Your task to perform on an android device: change alarm snooze length Image 0: 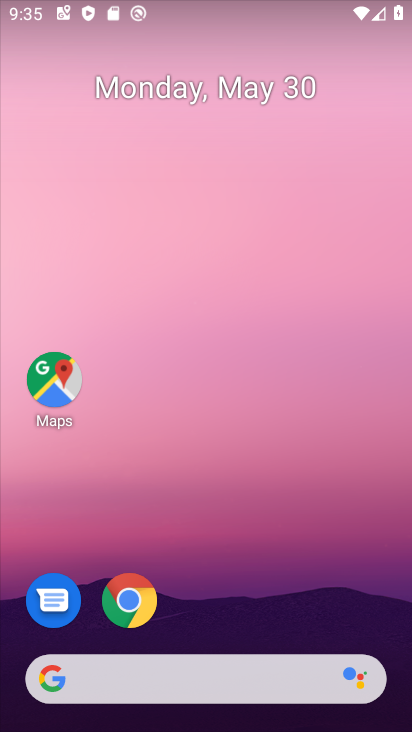
Step 0: press home button
Your task to perform on an android device: change alarm snooze length Image 1: 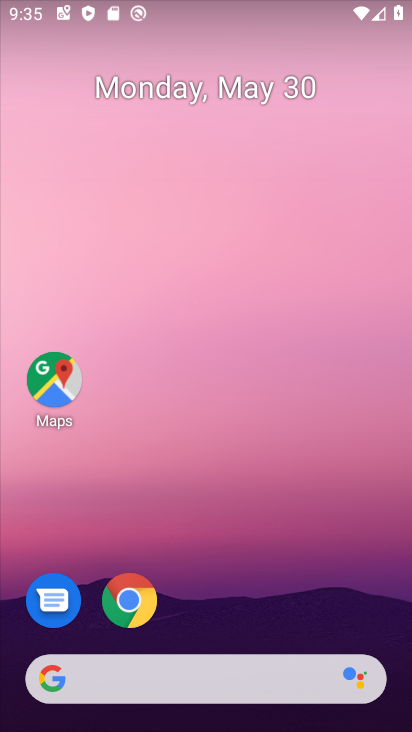
Step 1: drag from (280, 626) to (268, 81)
Your task to perform on an android device: change alarm snooze length Image 2: 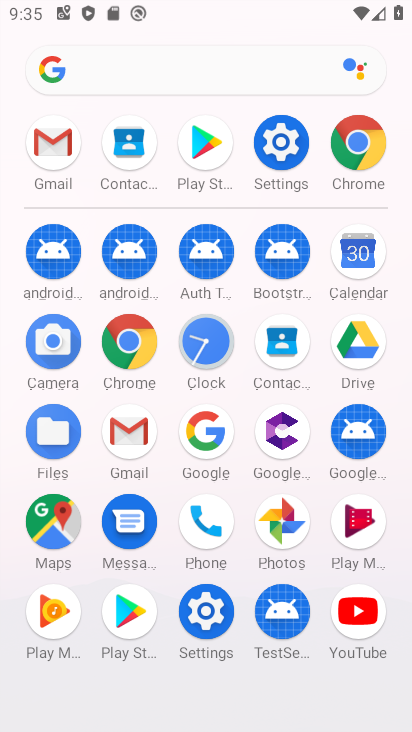
Step 2: click (198, 340)
Your task to perform on an android device: change alarm snooze length Image 3: 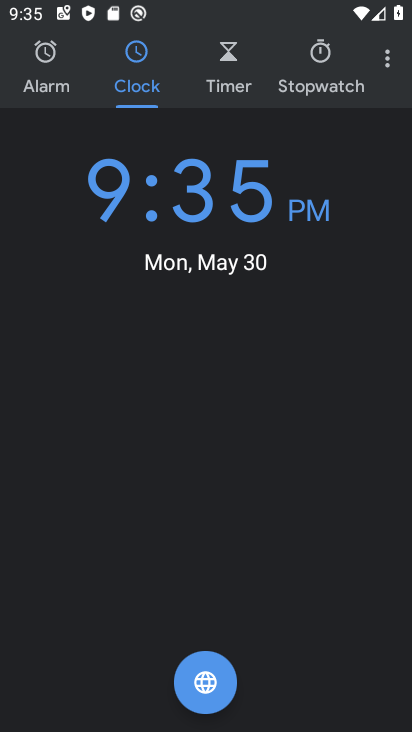
Step 3: click (375, 58)
Your task to perform on an android device: change alarm snooze length Image 4: 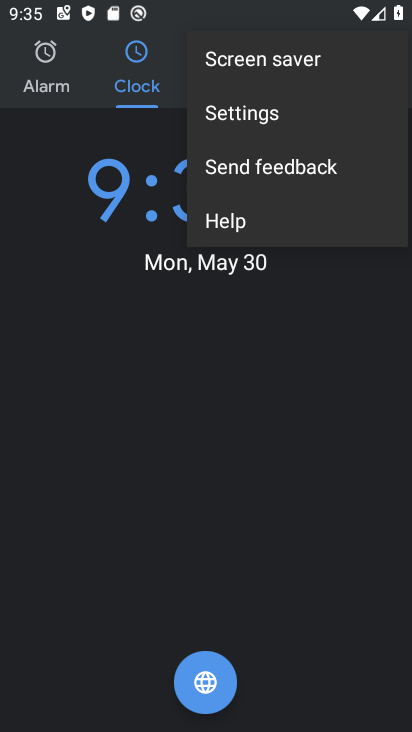
Step 4: click (282, 125)
Your task to perform on an android device: change alarm snooze length Image 5: 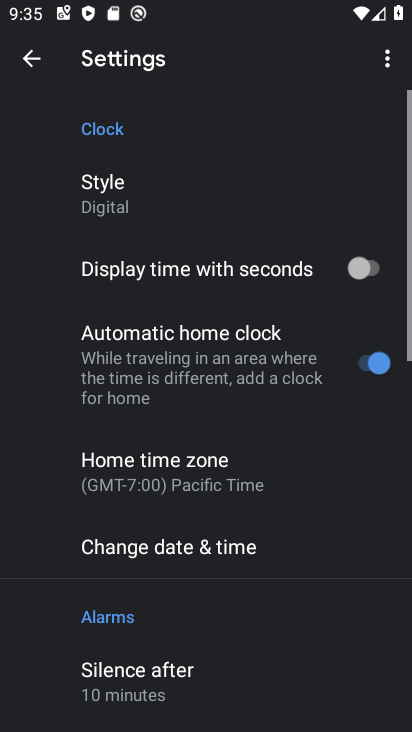
Step 5: drag from (230, 644) to (230, 402)
Your task to perform on an android device: change alarm snooze length Image 6: 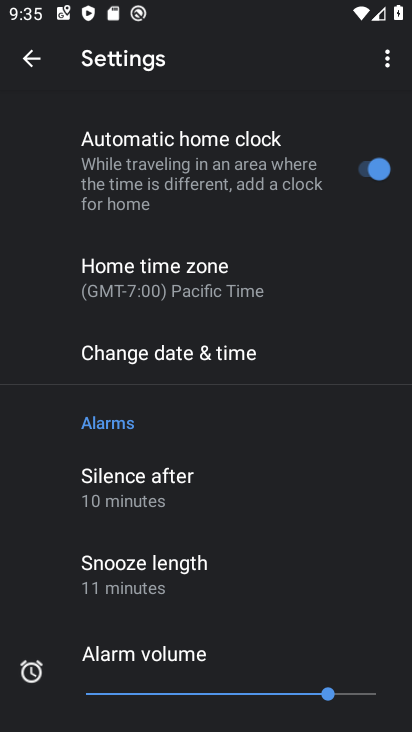
Step 6: click (138, 588)
Your task to perform on an android device: change alarm snooze length Image 7: 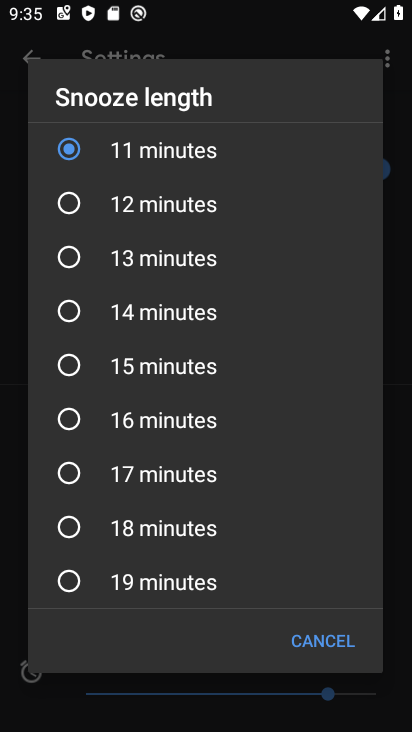
Step 7: click (67, 418)
Your task to perform on an android device: change alarm snooze length Image 8: 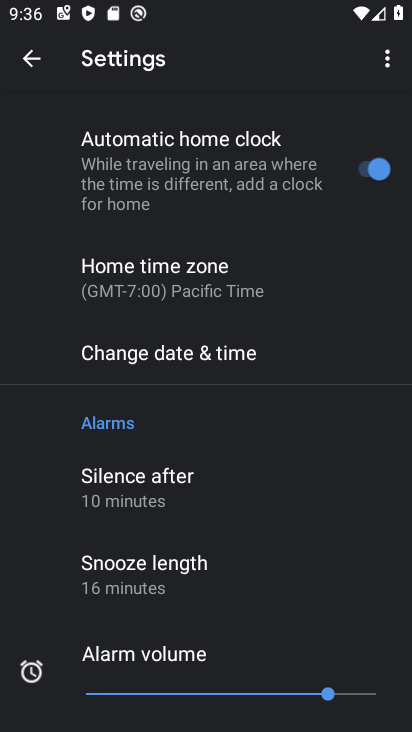
Step 8: task complete